Your task to perform on an android device: turn off picture-in-picture Image 0: 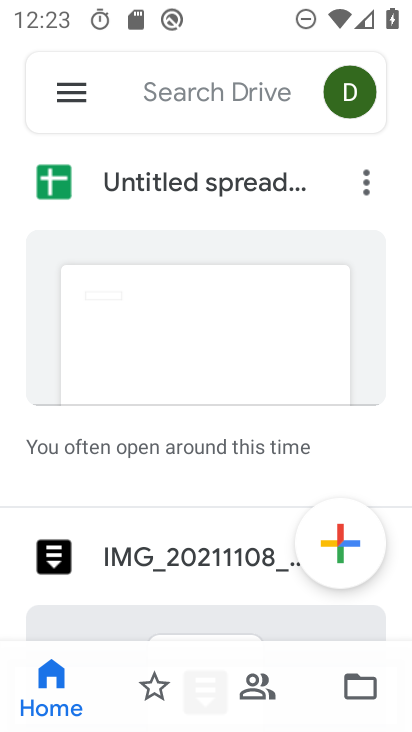
Step 0: press home button
Your task to perform on an android device: turn off picture-in-picture Image 1: 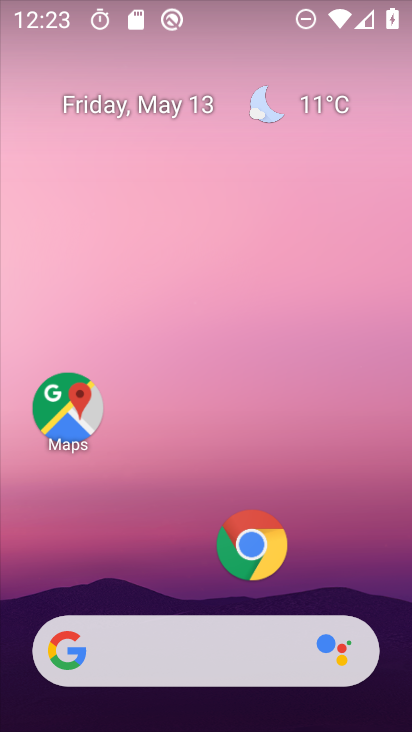
Step 1: drag from (201, 570) to (186, 100)
Your task to perform on an android device: turn off picture-in-picture Image 2: 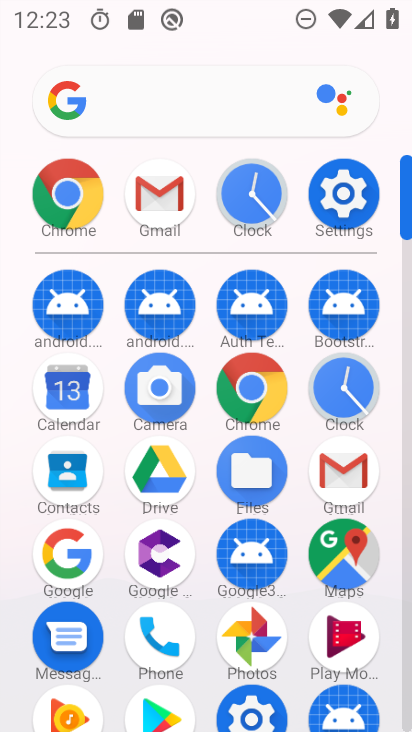
Step 2: click (63, 188)
Your task to perform on an android device: turn off picture-in-picture Image 3: 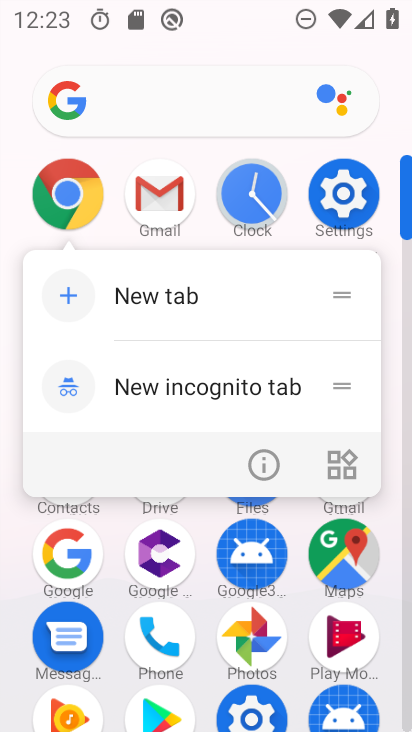
Step 3: click (260, 462)
Your task to perform on an android device: turn off picture-in-picture Image 4: 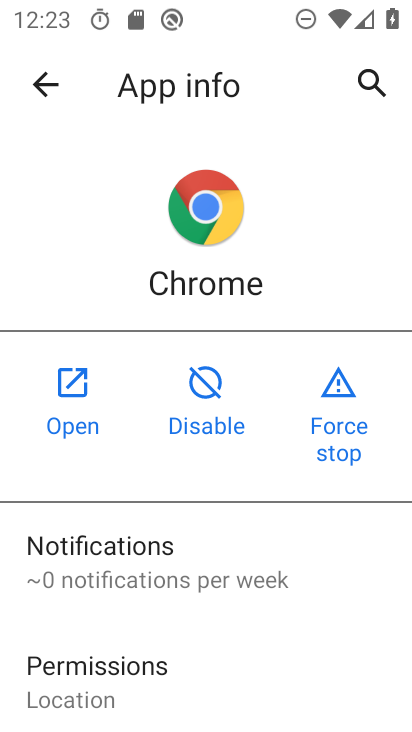
Step 4: drag from (191, 672) to (221, 183)
Your task to perform on an android device: turn off picture-in-picture Image 5: 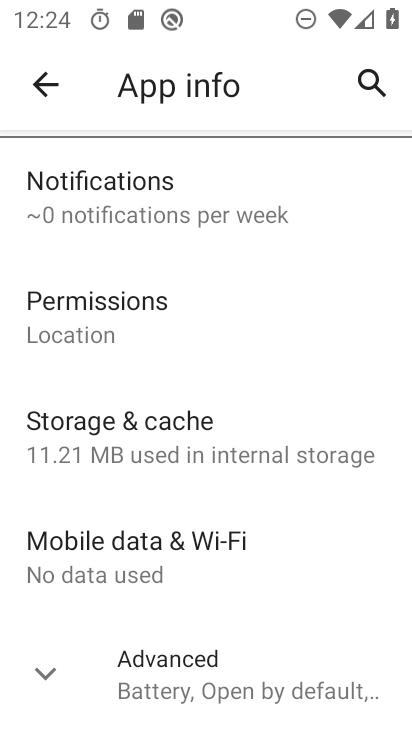
Step 5: click (50, 665)
Your task to perform on an android device: turn off picture-in-picture Image 6: 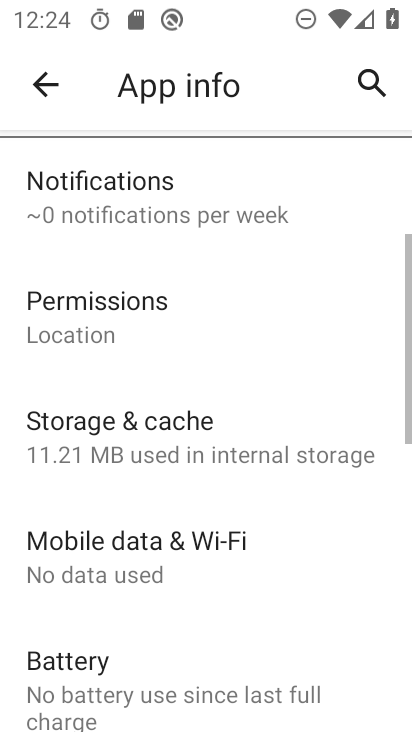
Step 6: drag from (161, 667) to (189, 165)
Your task to perform on an android device: turn off picture-in-picture Image 7: 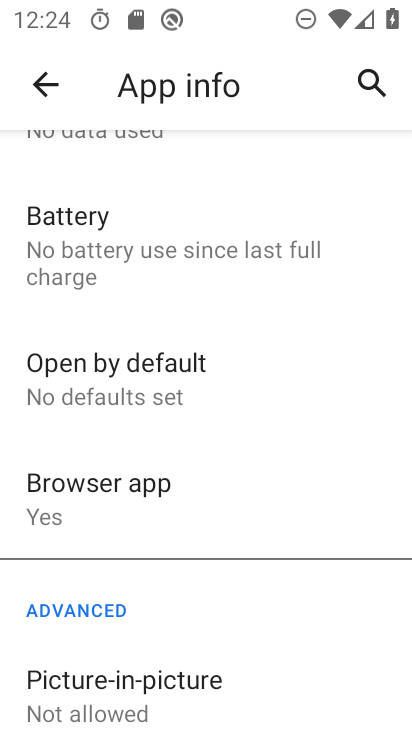
Step 7: click (178, 700)
Your task to perform on an android device: turn off picture-in-picture Image 8: 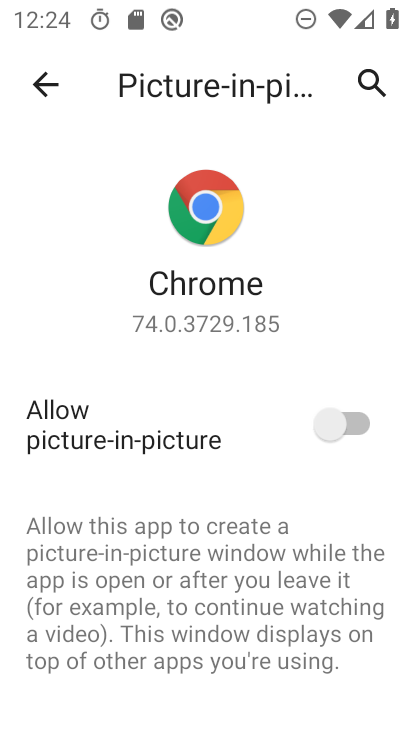
Step 8: task complete